Your task to perform on an android device: toggle priority inbox in the gmail app Image 0: 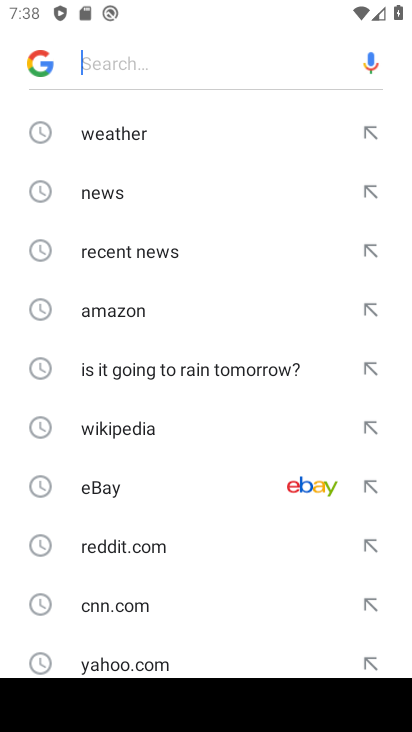
Step 0: press home button
Your task to perform on an android device: toggle priority inbox in the gmail app Image 1: 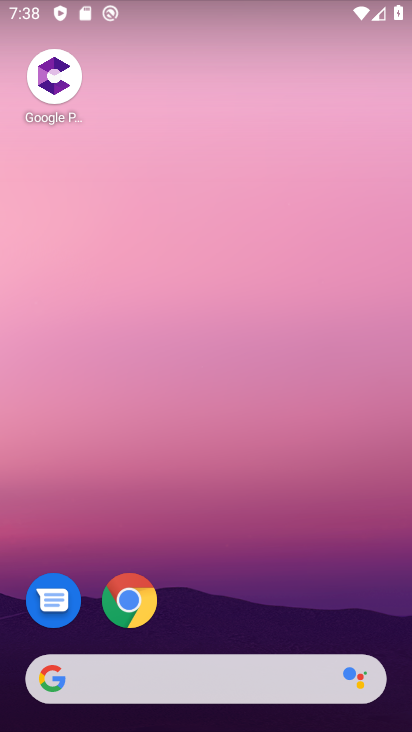
Step 1: drag from (222, 653) to (236, 304)
Your task to perform on an android device: toggle priority inbox in the gmail app Image 2: 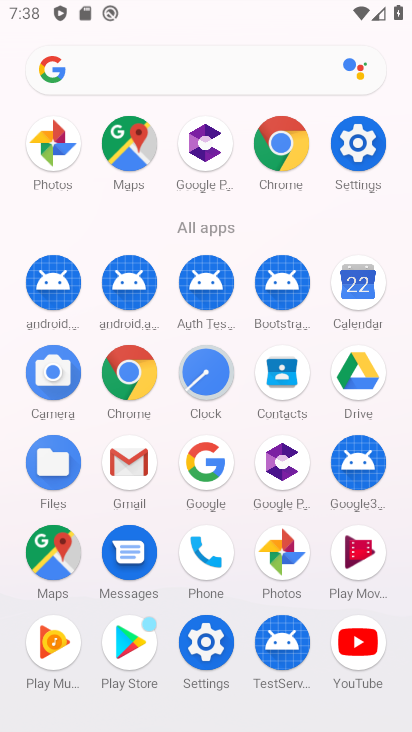
Step 2: click (130, 473)
Your task to perform on an android device: toggle priority inbox in the gmail app Image 3: 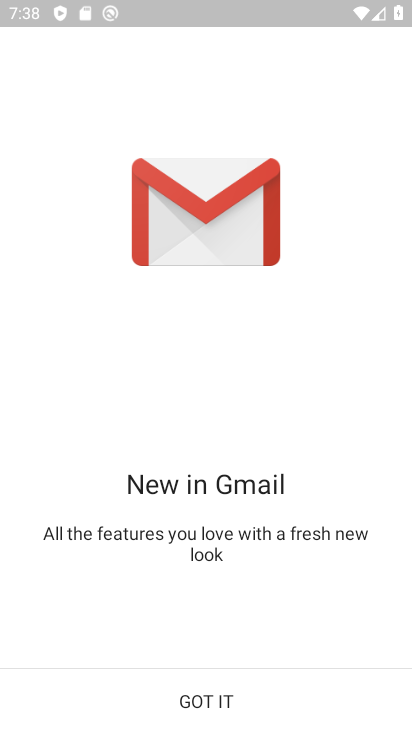
Step 3: click (203, 706)
Your task to perform on an android device: toggle priority inbox in the gmail app Image 4: 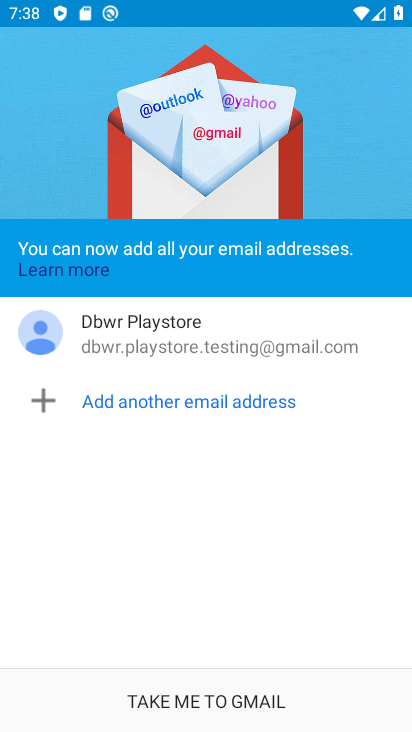
Step 4: click (203, 705)
Your task to perform on an android device: toggle priority inbox in the gmail app Image 5: 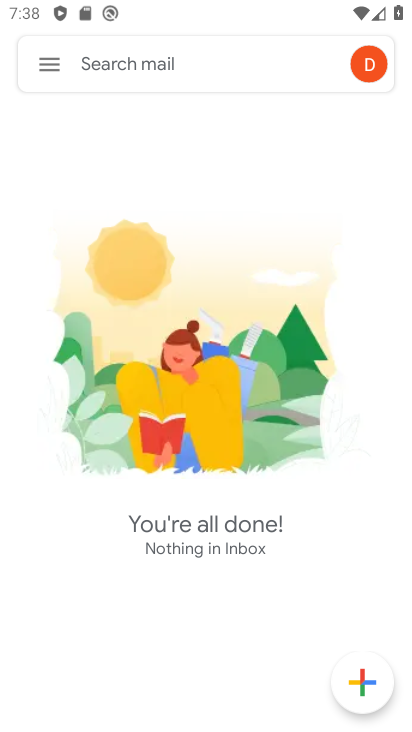
Step 5: click (46, 66)
Your task to perform on an android device: toggle priority inbox in the gmail app Image 6: 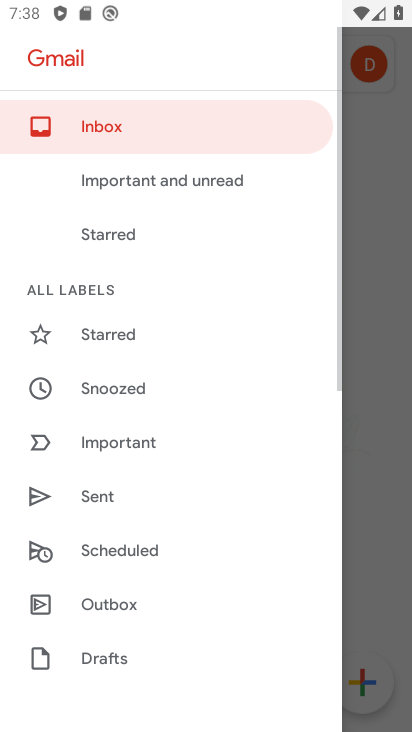
Step 6: drag from (118, 677) to (152, 319)
Your task to perform on an android device: toggle priority inbox in the gmail app Image 7: 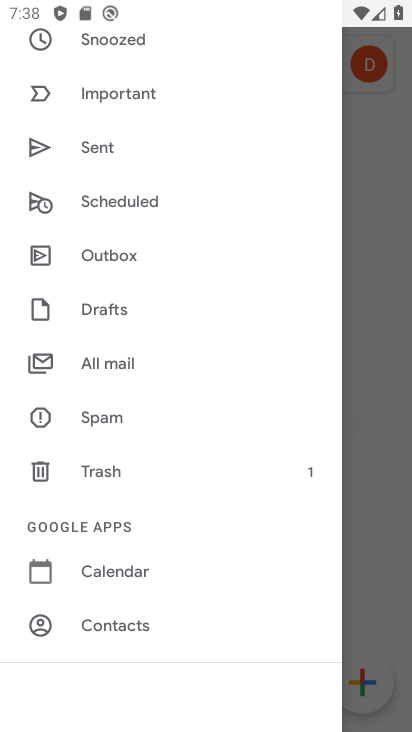
Step 7: drag from (146, 665) to (145, 337)
Your task to perform on an android device: toggle priority inbox in the gmail app Image 8: 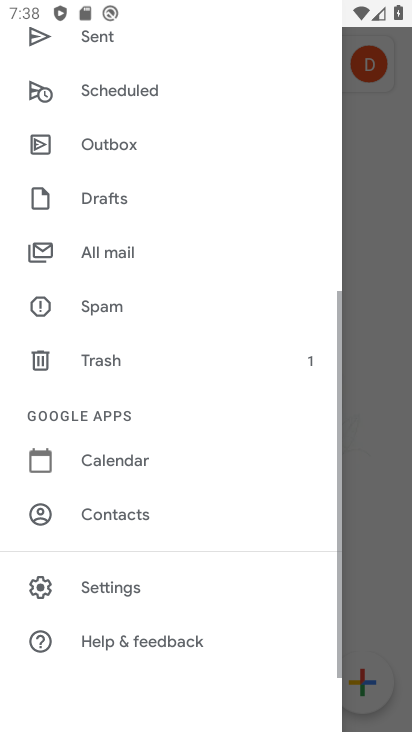
Step 8: click (129, 594)
Your task to perform on an android device: toggle priority inbox in the gmail app Image 9: 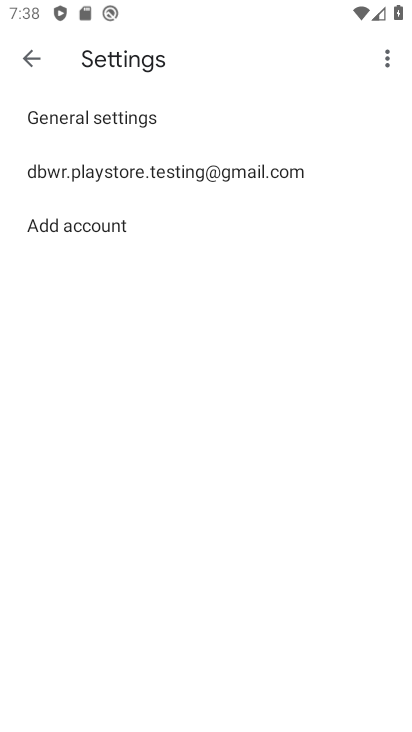
Step 9: click (94, 172)
Your task to perform on an android device: toggle priority inbox in the gmail app Image 10: 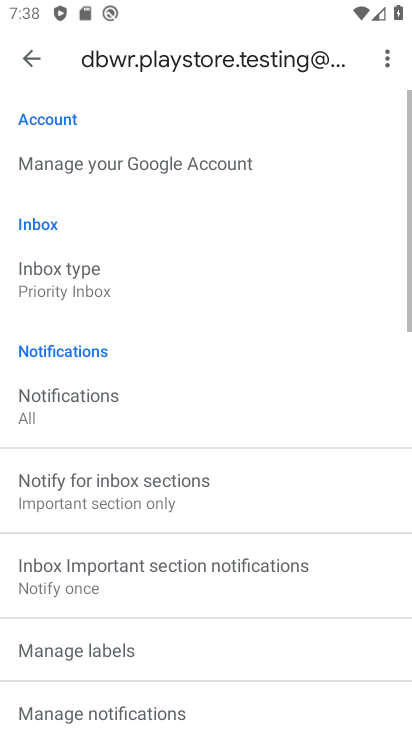
Step 10: click (75, 272)
Your task to perform on an android device: toggle priority inbox in the gmail app Image 11: 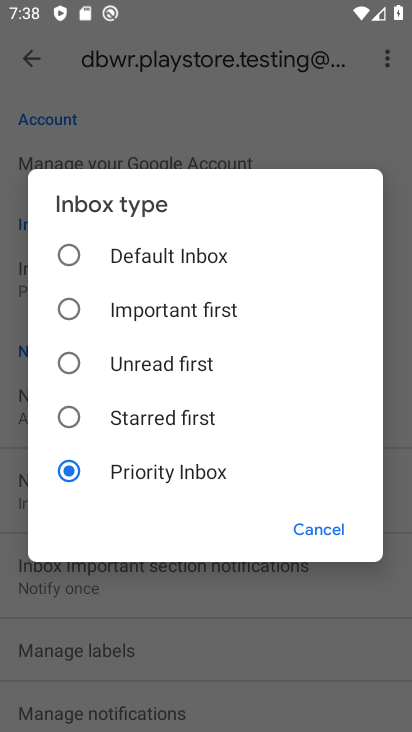
Step 11: click (57, 308)
Your task to perform on an android device: toggle priority inbox in the gmail app Image 12: 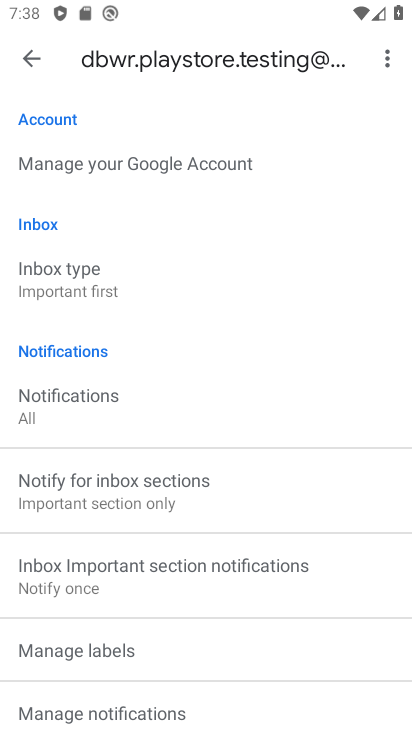
Step 12: task complete